Your task to perform on an android device: star an email in the gmail app Image 0: 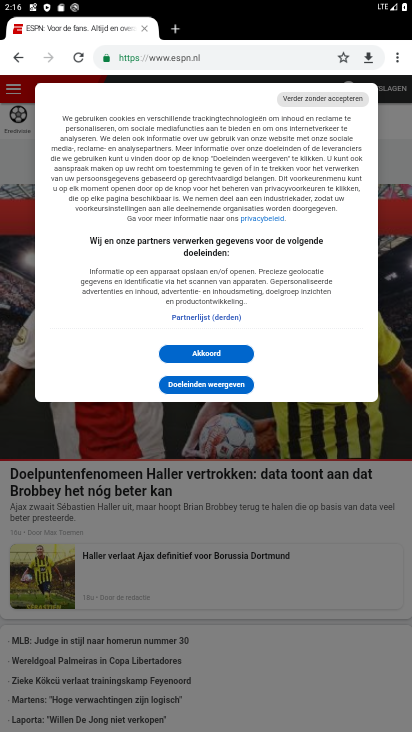
Step 0: press home button
Your task to perform on an android device: star an email in the gmail app Image 1: 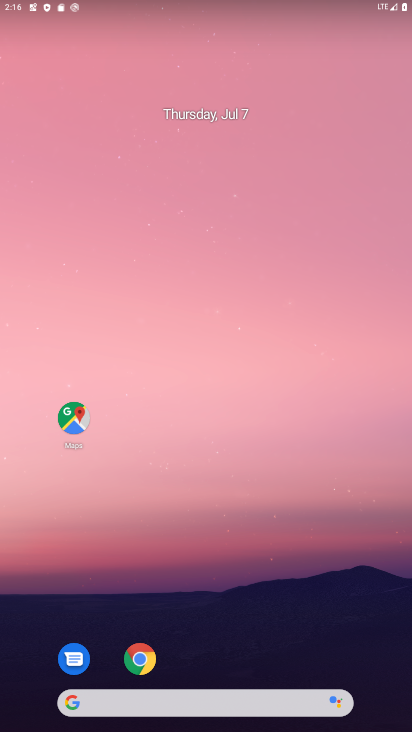
Step 1: drag from (218, 639) to (228, 142)
Your task to perform on an android device: star an email in the gmail app Image 2: 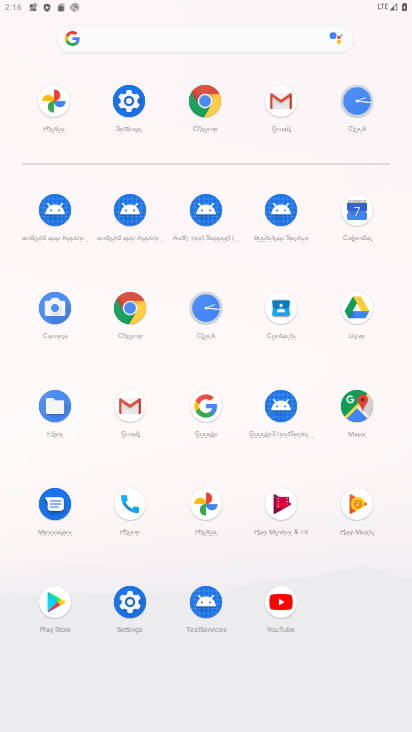
Step 2: click (280, 100)
Your task to perform on an android device: star an email in the gmail app Image 3: 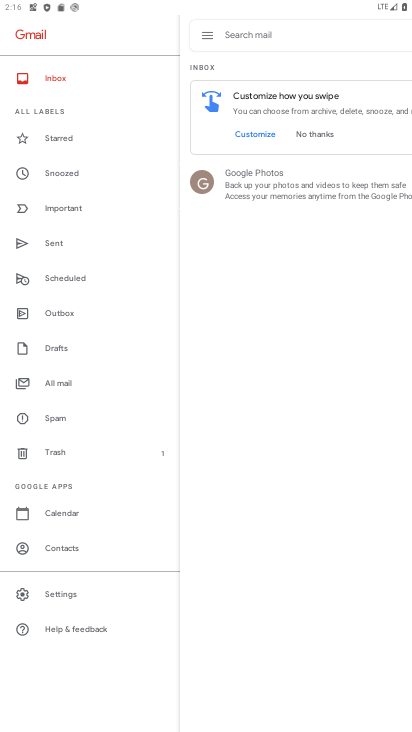
Step 3: click (266, 192)
Your task to perform on an android device: star an email in the gmail app Image 4: 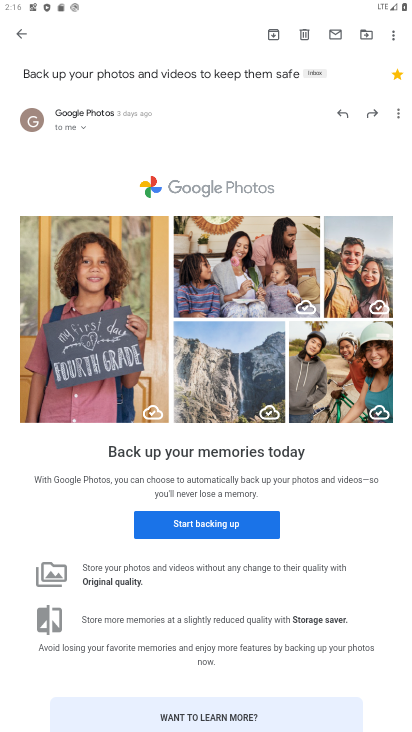
Step 4: task complete